Your task to perform on an android device: Empty the shopping cart on amazon. Image 0: 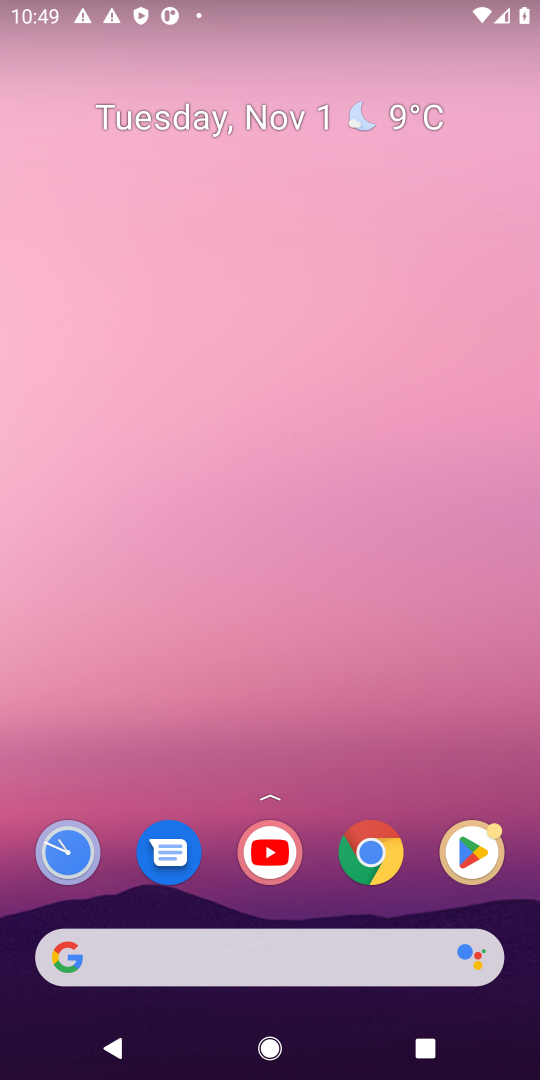
Step 0: drag from (317, 926) to (379, 302)
Your task to perform on an android device: Empty the shopping cart on amazon. Image 1: 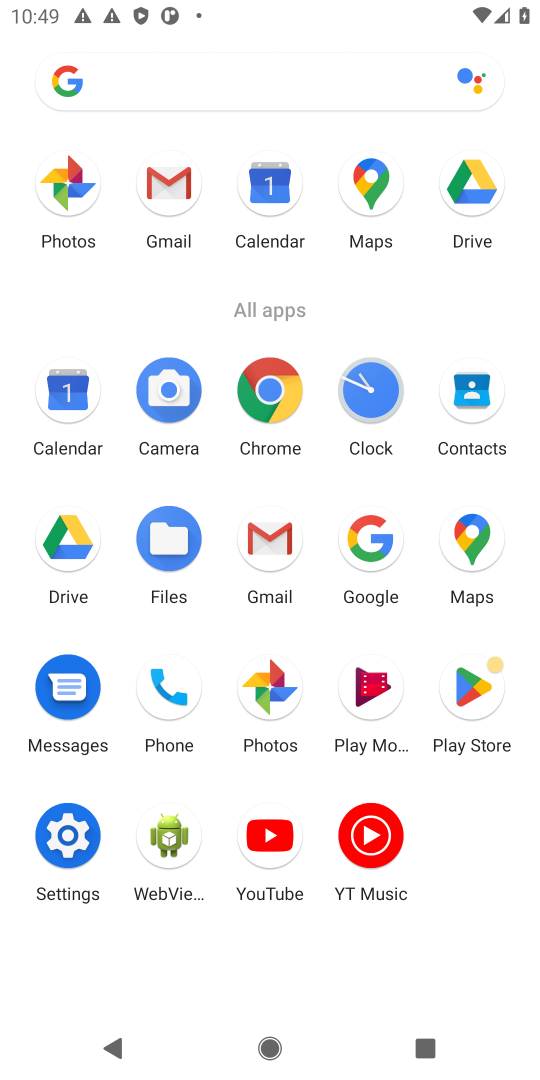
Step 1: click (360, 548)
Your task to perform on an android device: Empty the shopping cart on amazon. Image 2: 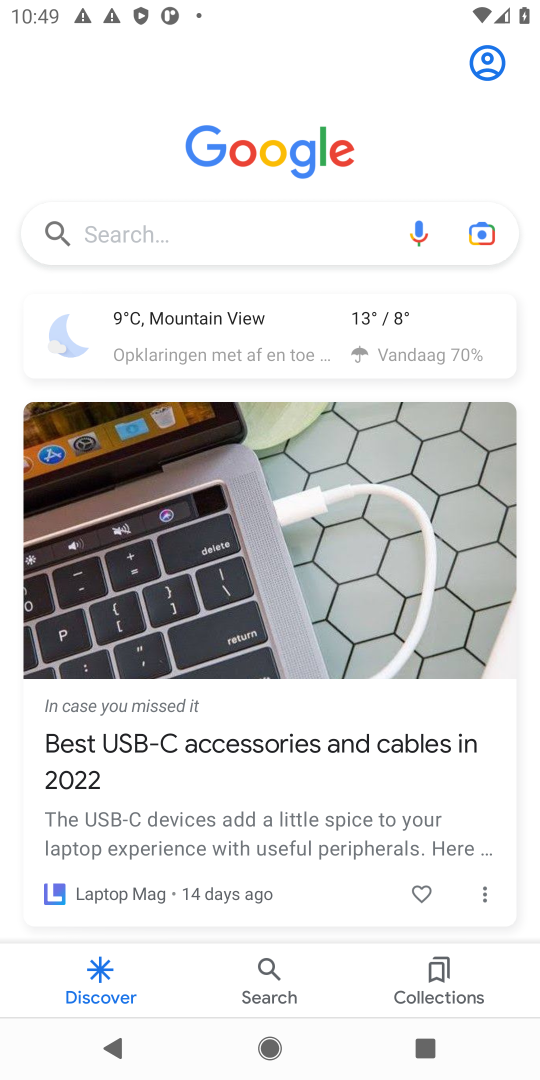
Step 2: click (126, 238)
Your task to perform on an android device: Empty the shopping cart on amazon. Image 3: 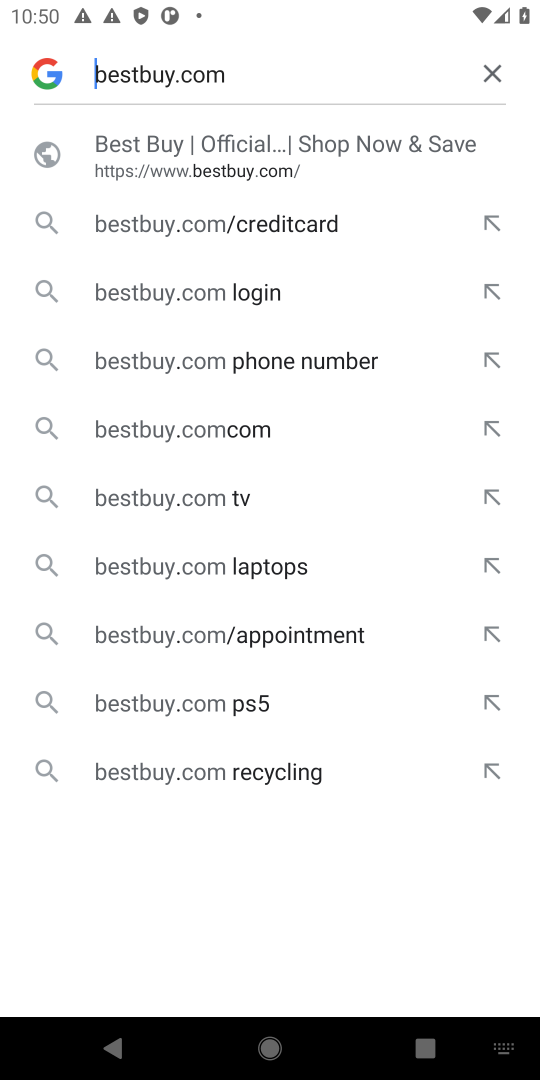
Step 3: type "amazon"
Your task to perform on an android device: Empty the shopping cart on amazon. Image 4: 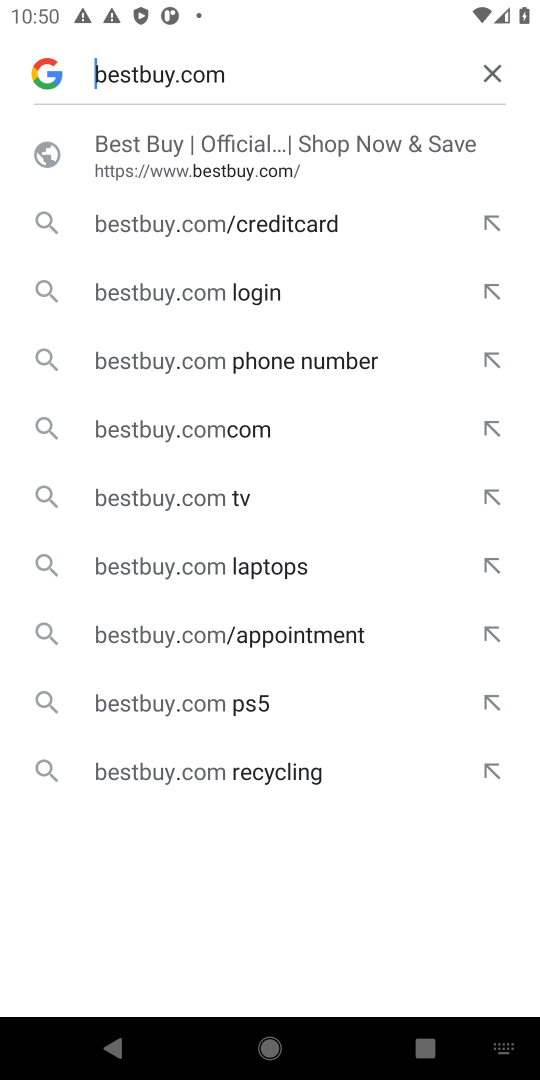
Step 4: click (501, 70)
Your task to perform on an android device: Empty the shopping cart on amazon. Image 5: 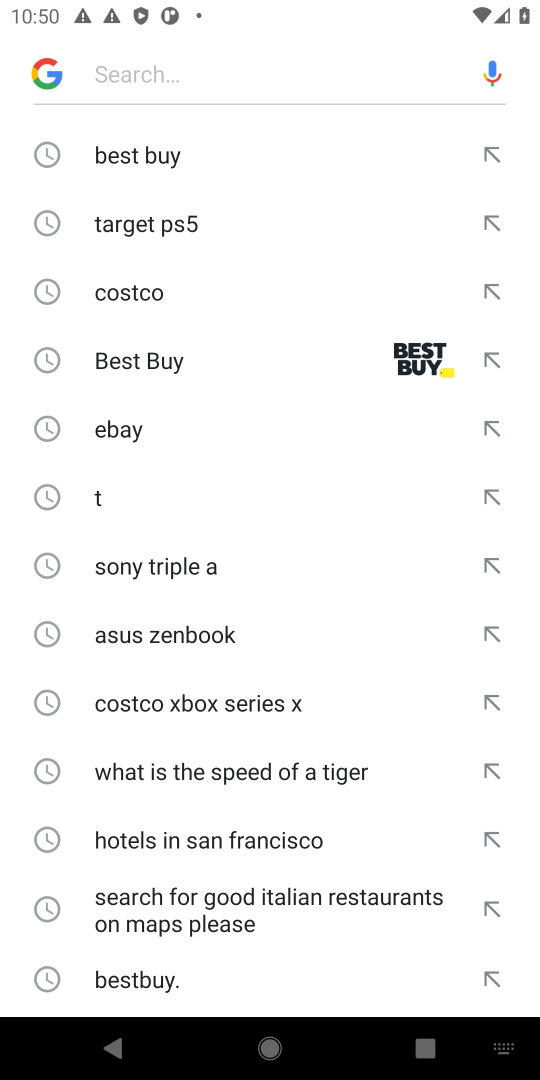
Step 5: type "amazon"
Your task to perform on an android device: Empty the shopping cart on amazon. Image 6: 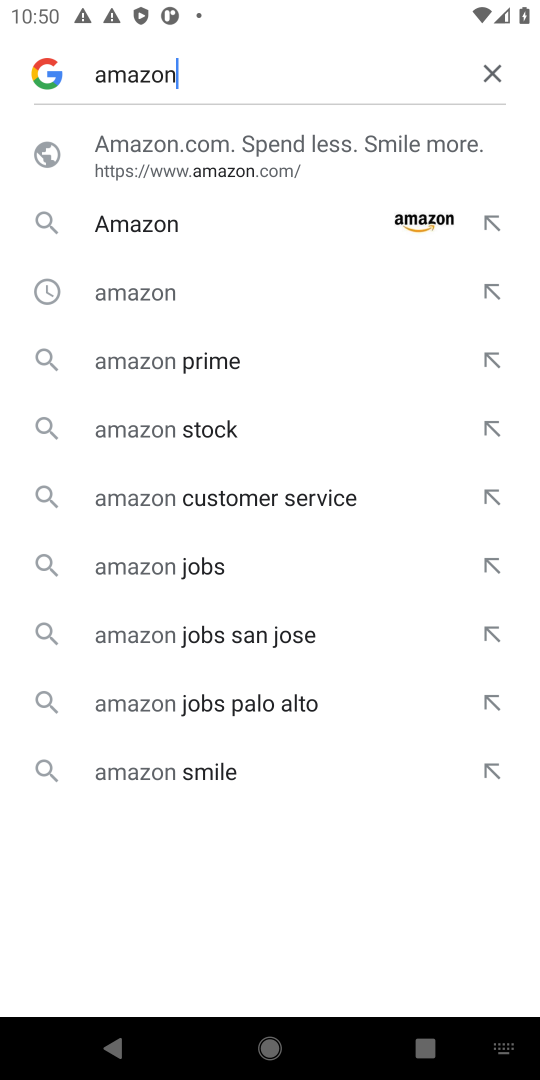
Step 6: click (270, 154)
Your task to perform on an android device: Empty the shopping cart on amazon. Image 7: 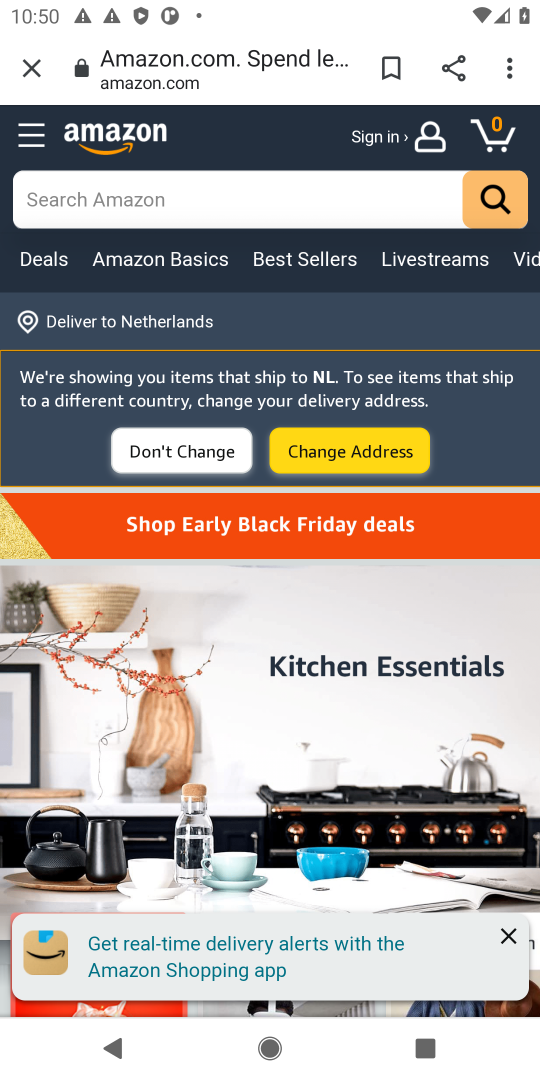
Step 7: click (214, 209)
Your task to perform on an android device: Empty the shopping cart on amazon. Image 8: 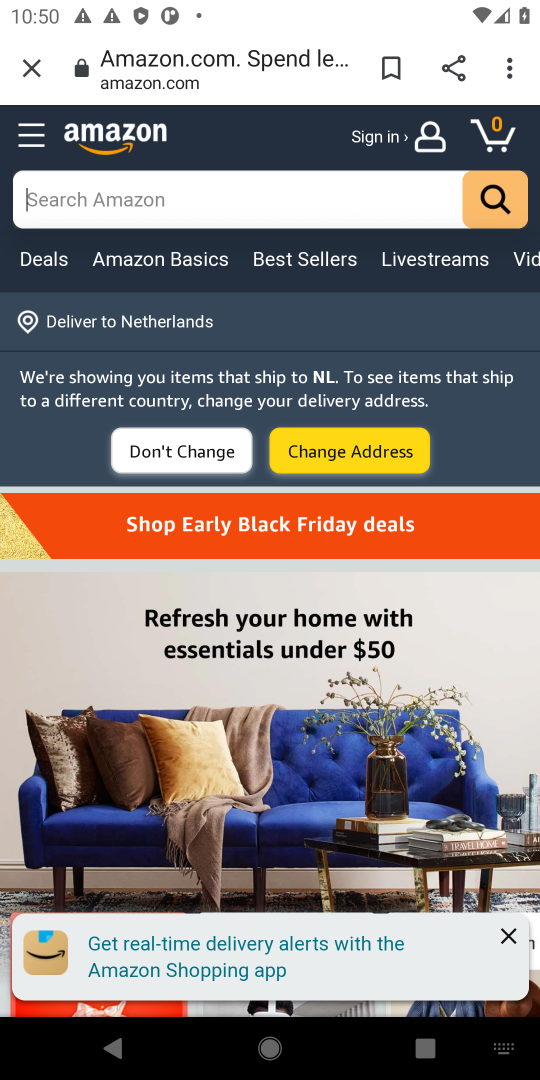
Step 8: click (502, 126)
Your task to perform on an android device: Empty the shopping cart on amazon. Image 9: 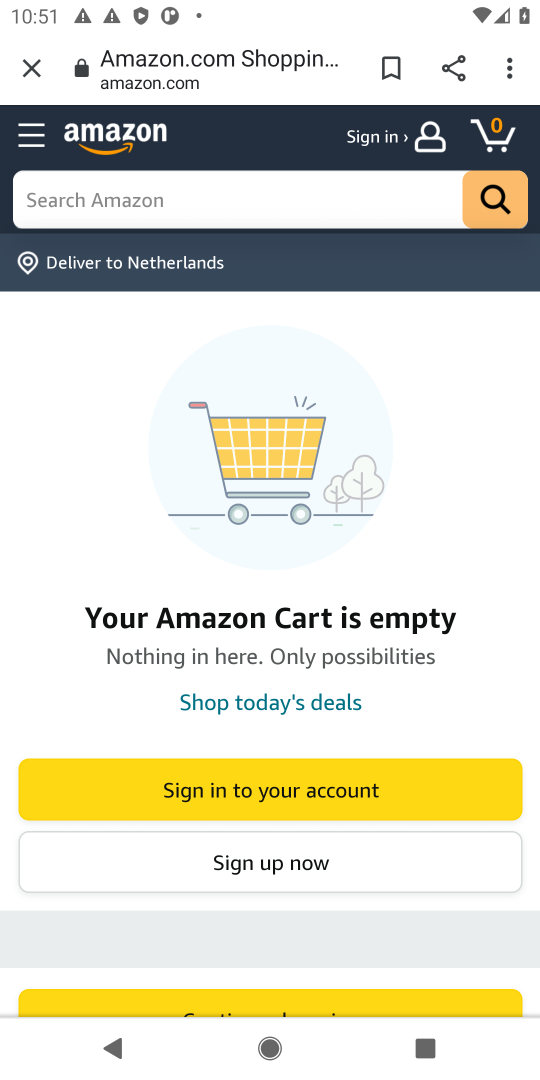
Step 9: task complete